Your task to perform on an android device: Open Google Maps Image 0: 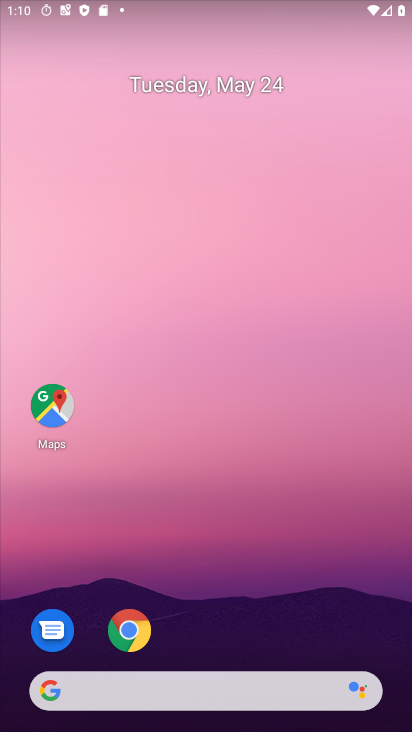
Step 0: click (49, 407)
Your task to perform on an android device: Open Google Maps Image 1: 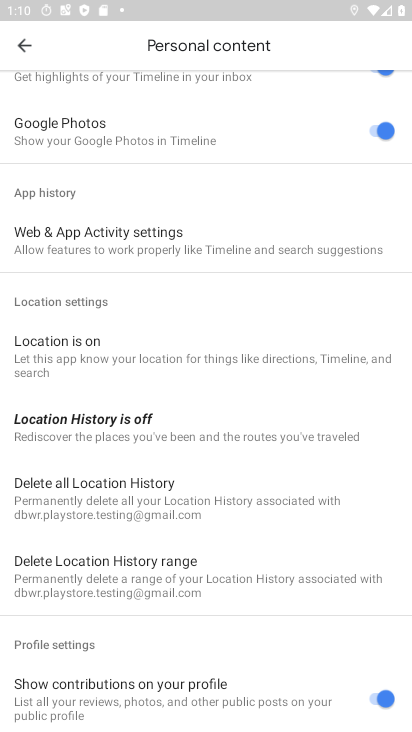
Step 1: task complete